Your task to perform on an android device: What's the weather? Image 0: 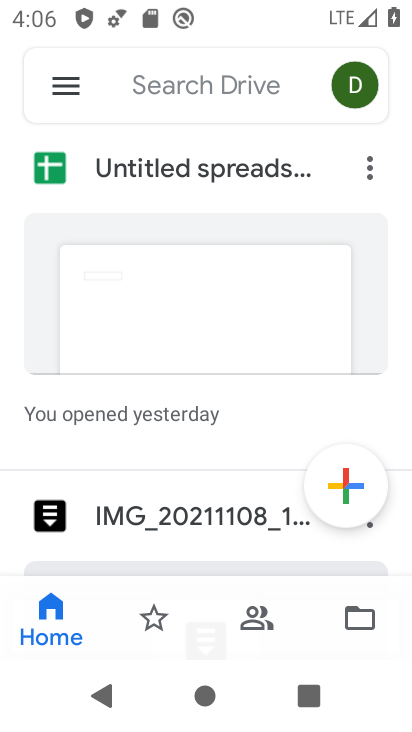
Step 0: press home button
Your task to perform on an android device: What's the weather? Image 1: 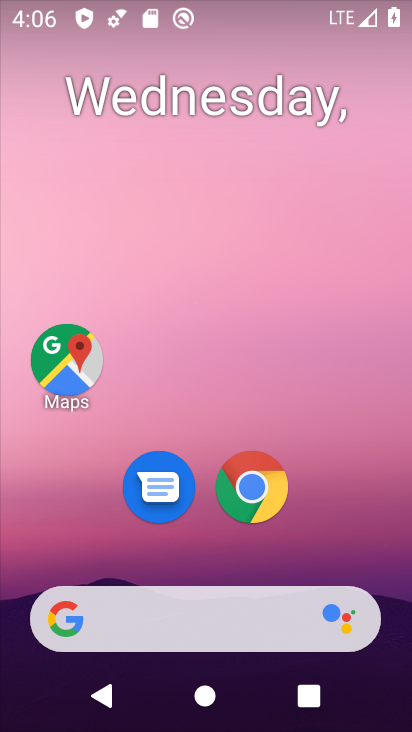
Step 1: drag from (26, 250) to (411, 274)
Your task to perform on an android device: What's the weather? Image 2: 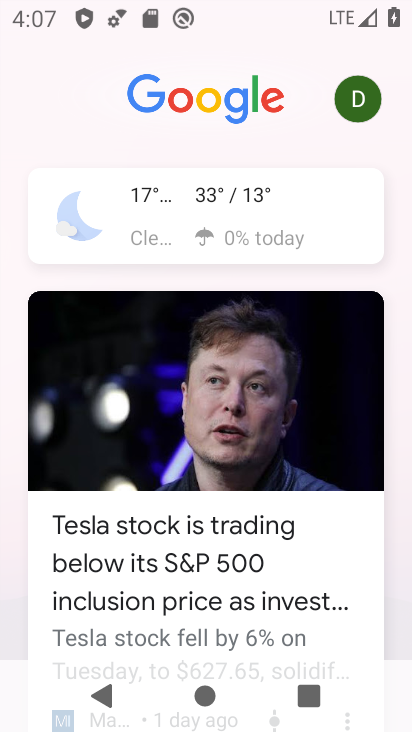
Step 2: click (272, 205)
Your task to perform on an android device: What's the weather? Image 3: 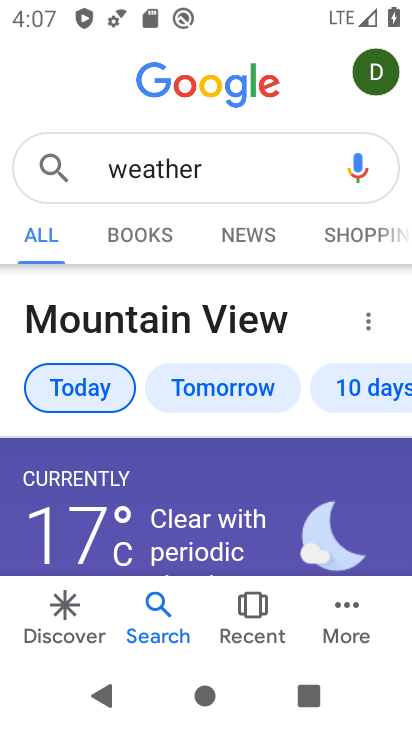
Step 3: task complete